Your task to perform on an android device: turn on location history Image 0: 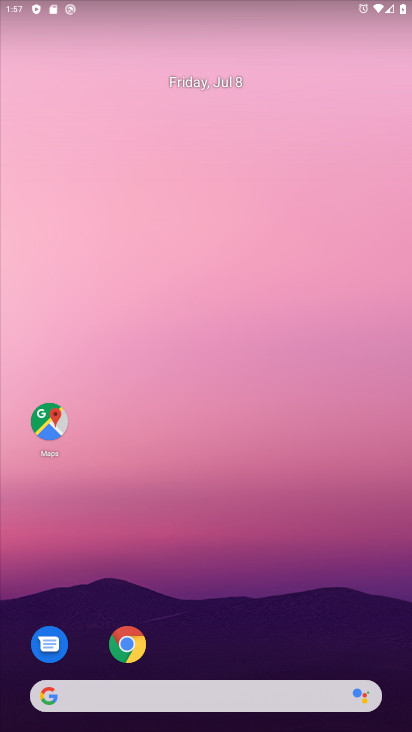
Step 0: drag from (171, 420) to (143, 300)
Your task to perform on an android device: turn on location history Image 1: 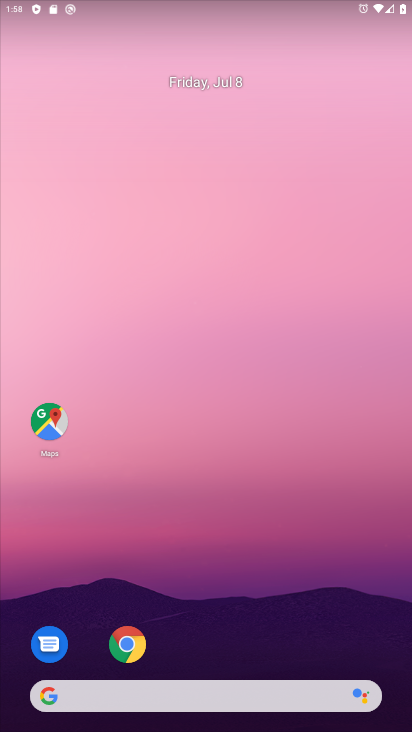
Step 1: drag from (292, 644) to (279, 149)
Your task to perform on an android device: turn on location history Image 2: 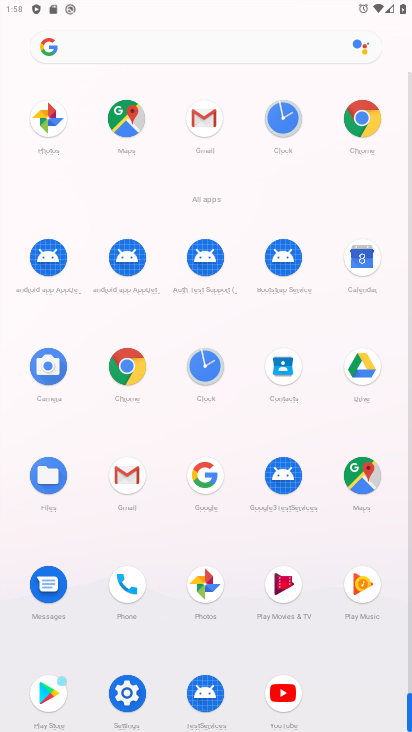
Step 2: click (134, 695)
Your task to perform on an android device: turn on location history Image 3: 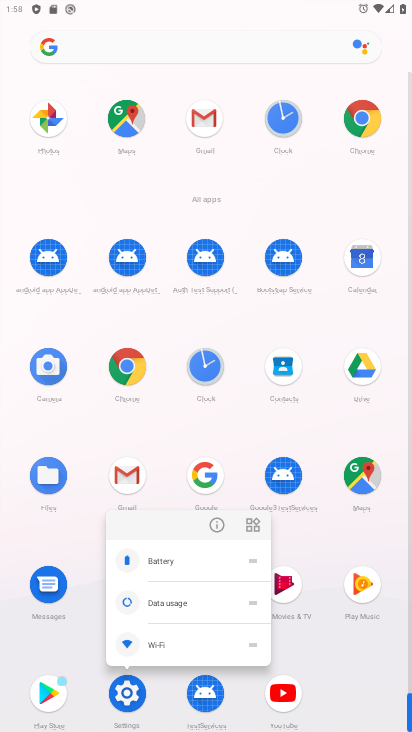
Step 3: click (124, 684)
Your task to perform on an android device: turn on location history Image 4: 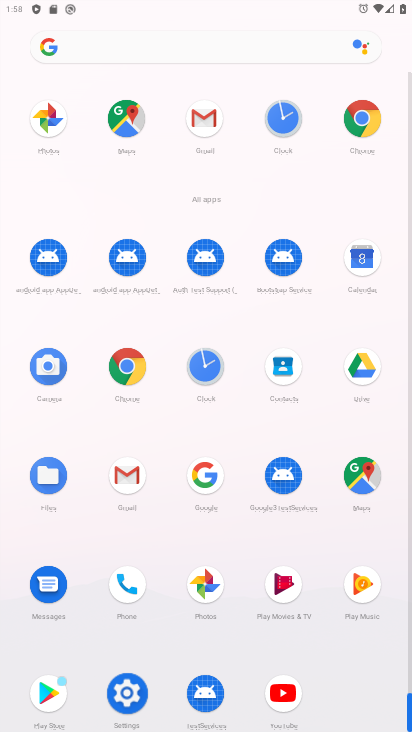
Step 4: click (125, 685)
Your task to perform on an android device: turn on location history Image 5: 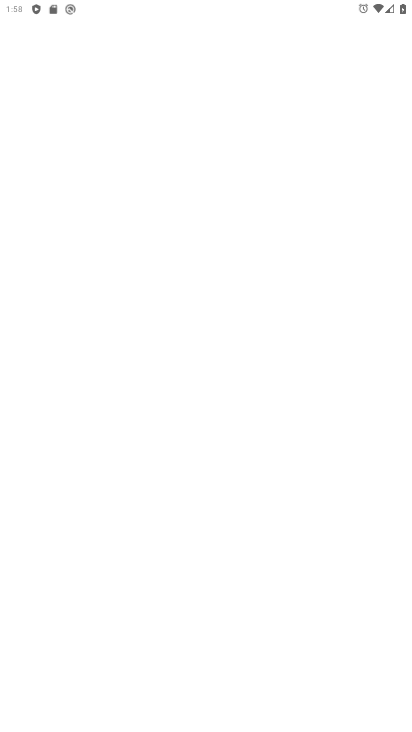
Step 5: click (126, 685)
Your task to perform on an android device: turn on location history Image 6: 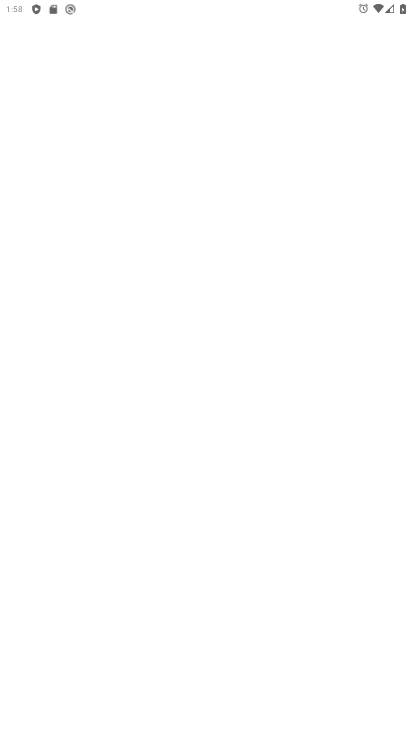
Step 6: click (127, 688)
Your task to perform on an android device: turn on location history Image 7: 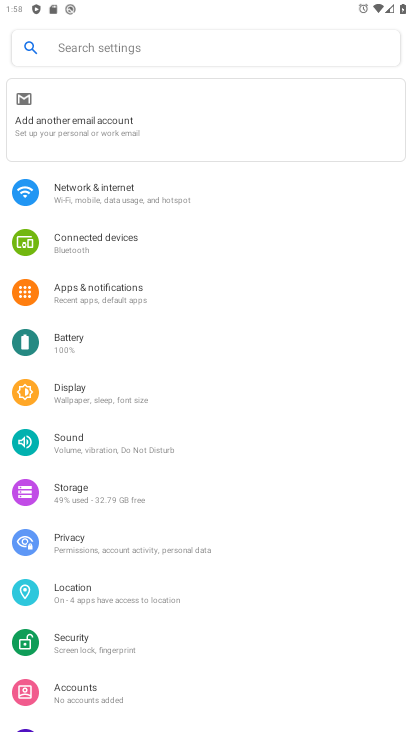
Step 7: click (77, 588)
Your task to perform on an android device: turn on location history Image 8: 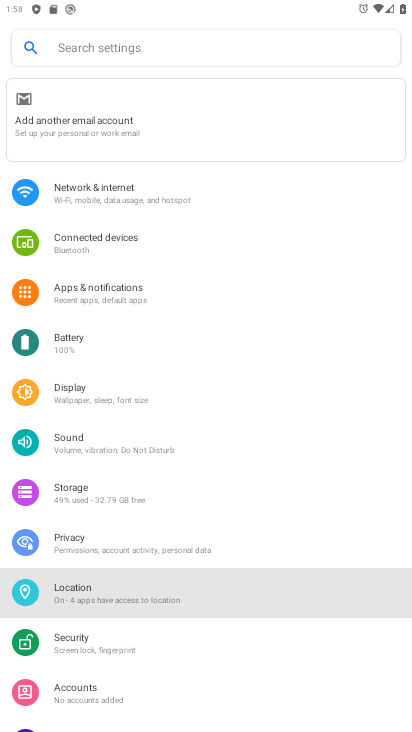
Step 8: click (77, 588)
Your task to perform on an android device: turn on location history Image 9: 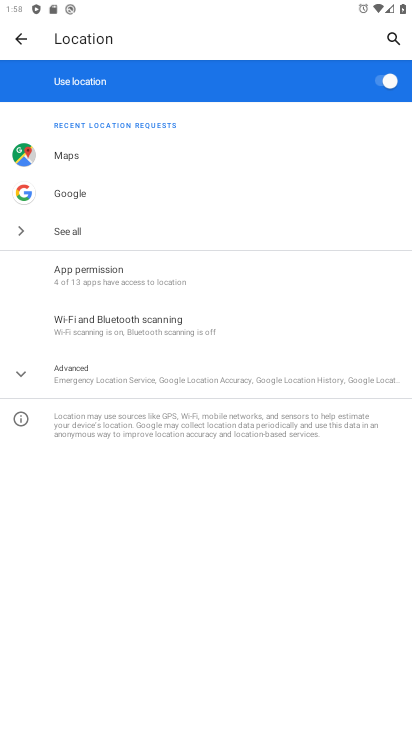
Step 9: click (65, 371)
Your task to perform on an android device: turn on location history Image 10: 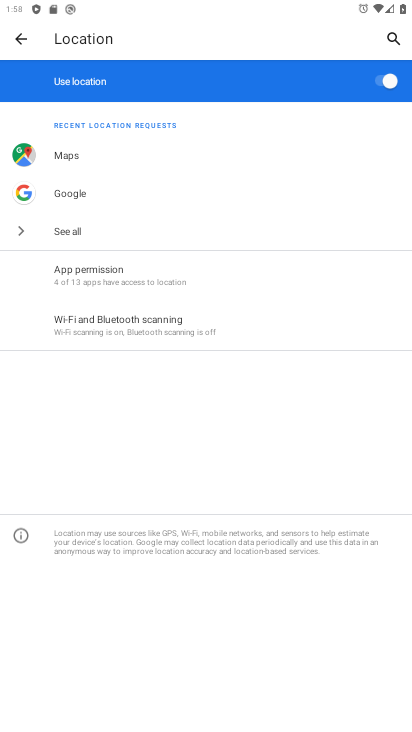
Step 10: click (58, 377)
Your task to perform on an android device: turn on location history Image 11: 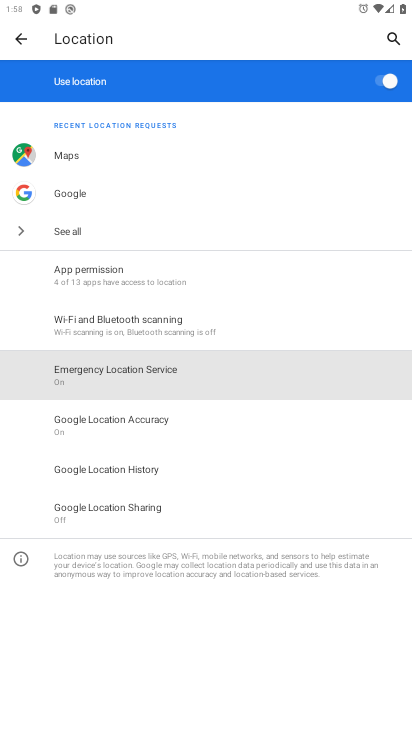
Step 11: click (63, 368)
Your task to perform on an android device: turn on location history Image 12: 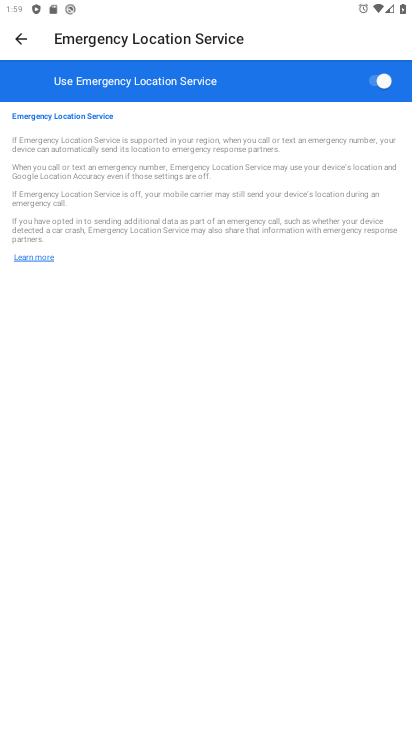
Step 12: click (22, 41)
Your task to perform on an android device: turn on location history Image 13: 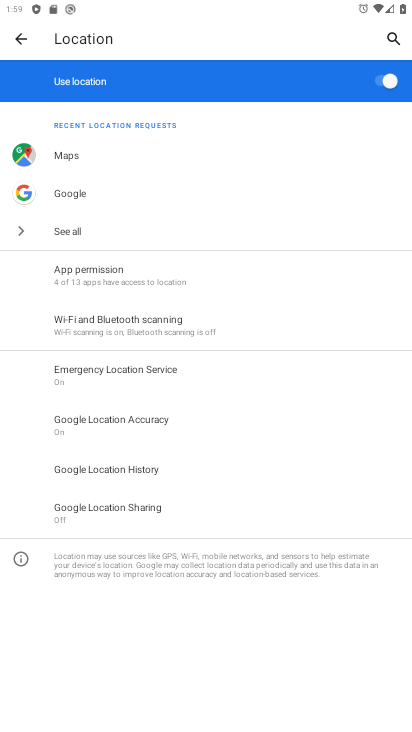
Step 13: click (111, 480)
Your task to perform on an android device: turn on location history Image 14: 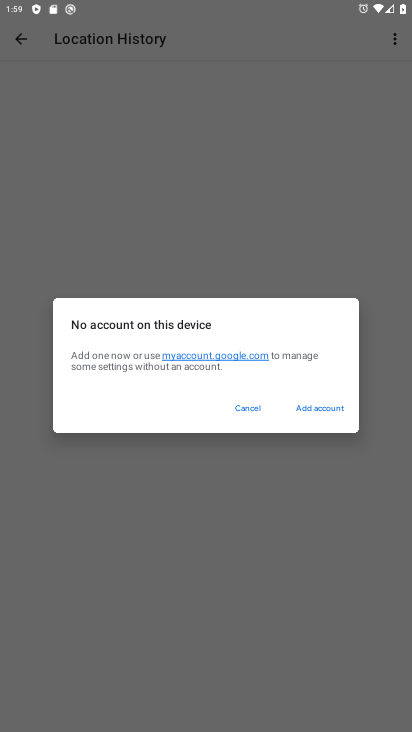
Step 14: task complete